Your task to perform on an android device: Open Yahoo.com Image 0: 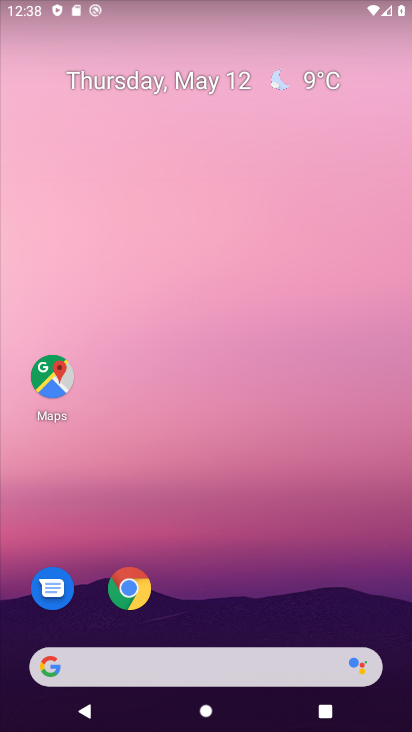
Step 0: drag from (376, 661) to (153, 174)
Your task to perform on an android device: Open Yahoo.com Image 1: 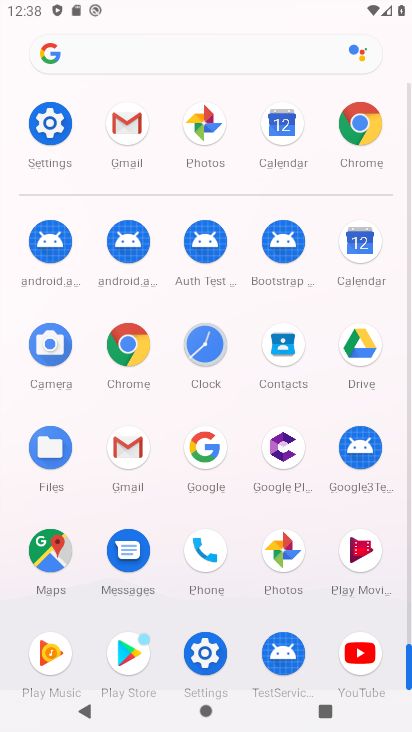
Step 1: click (53, 133)
Your task to perform on an android device: Open Yahoo.com Image 2: 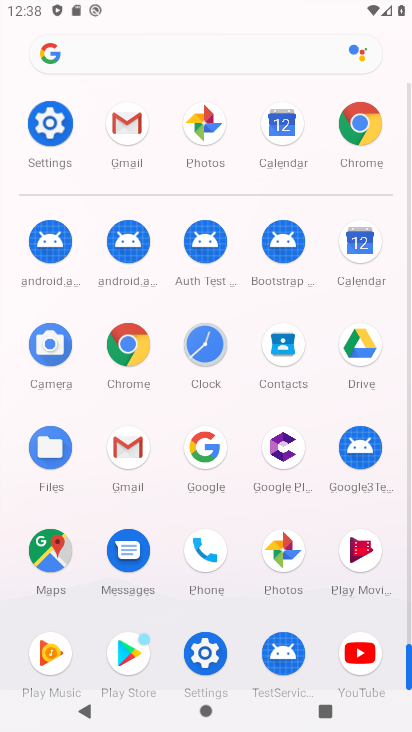
Step 2: click (53, 133)
Your task to perform on an android device: Open Yahoo.com Image 3: 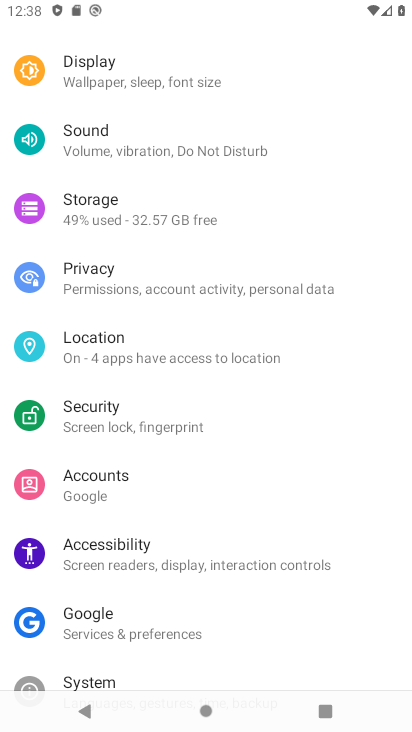
Step 3: press back button
Your task to perform on an android device: Open Yahoo.com Image 4: 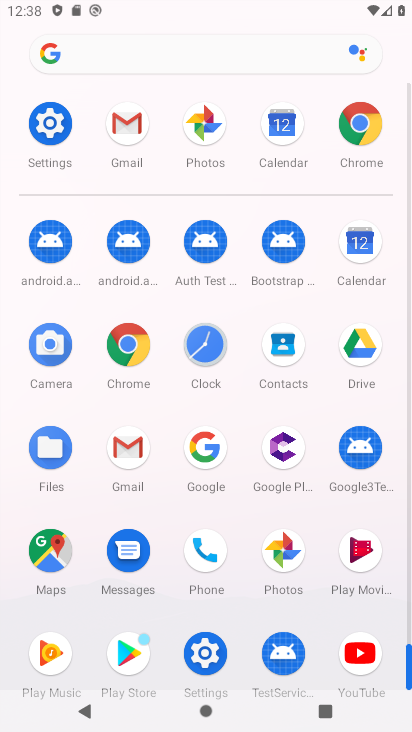
Step 4: click (43, 134)
Your task to perform on an android device: Open Yahoo.com Image 5: 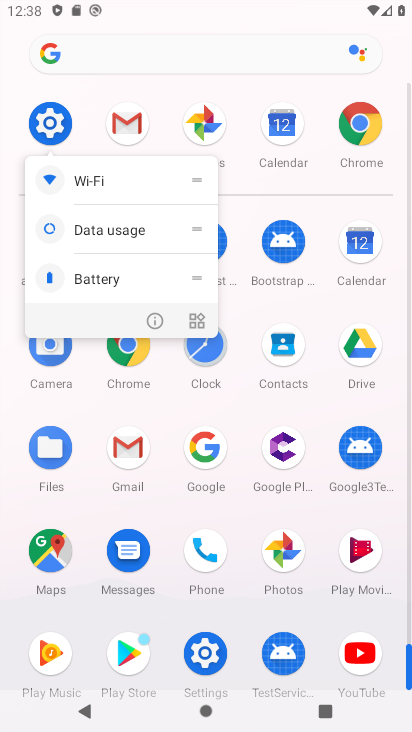
Step 5: press back button
Your task to perform on an android device: Open Yahoo.com Image 6: 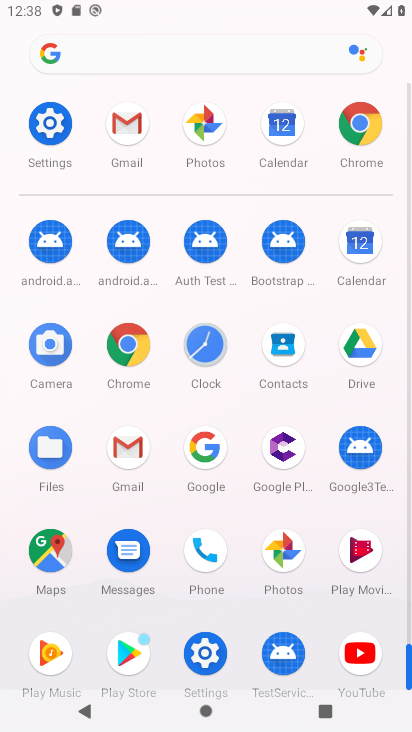
Step 6: click (375, 132)
Your task to perform on an android device: Open Yahoo.com Image 7: 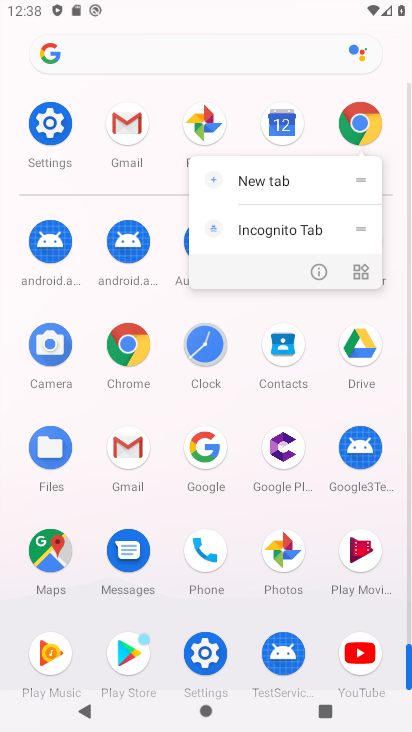
Step 7: click (354, 136)
Your task to perform on an android device: Open Yahoo.com Image 8: 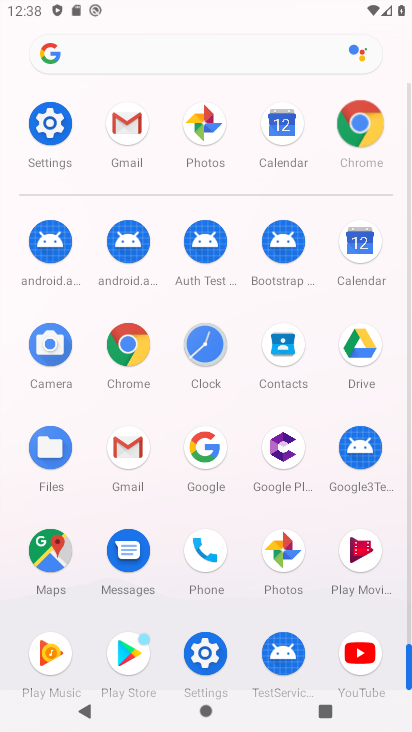
Step 8: click (355, 135)
Your task to perform on an android device: Open Yahoo.com Image 9: 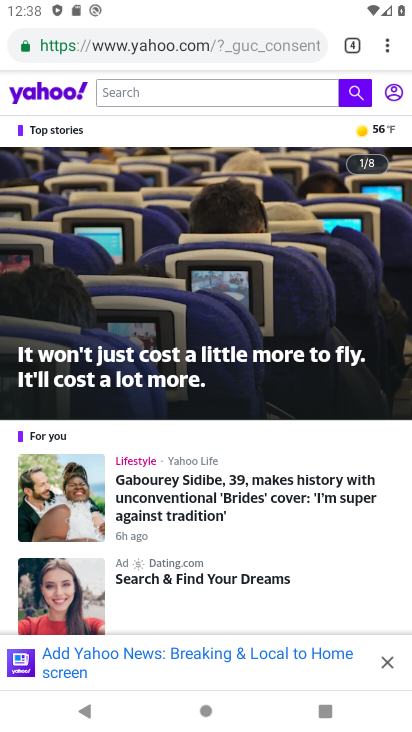
Step 9: task complete